Your task to perform on an android device: Search for vegetarian restaurants on Maps Image 0: 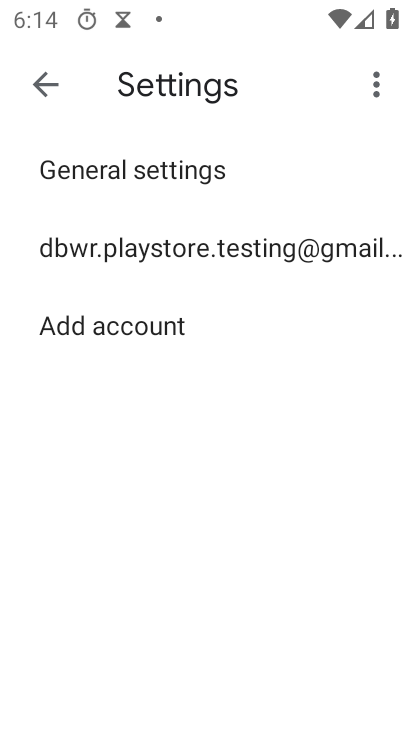
Step 0: press home button
Your task to perform on an android device: Search for vegetarian restaurants on Maps Image 1: 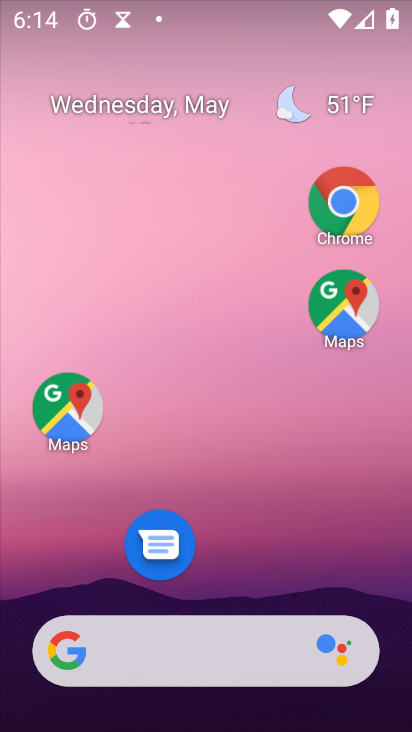
Step 1: drag from (233, 528) to (192, 91)
Your task to perform on an android device: Search for vegetarian restaurants on Maps Image 2: 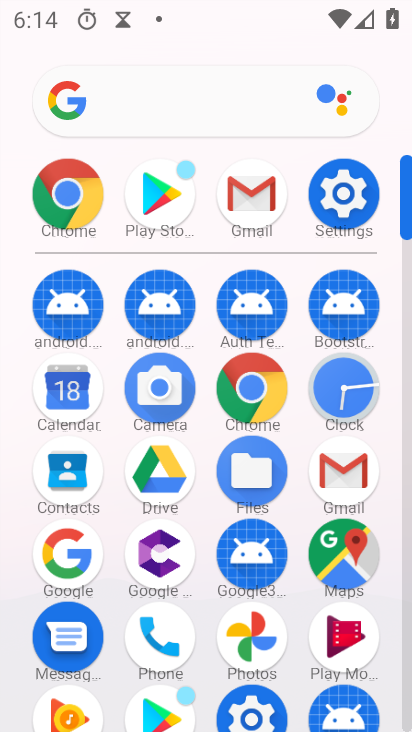
Step 2: click (353, 545)
Your task to perform on an android device: Search for vegetarian restaurants on Maps Image 3: 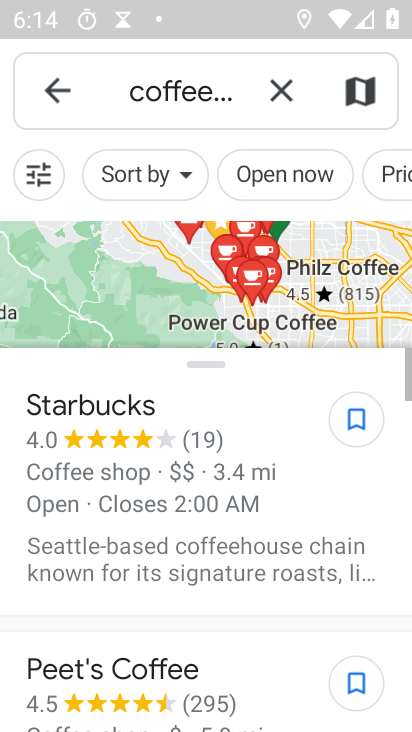
Step 3: click (289, 91)
Your task to perform on an android device: Search for vegetarian restaurants on Maps Image 4: 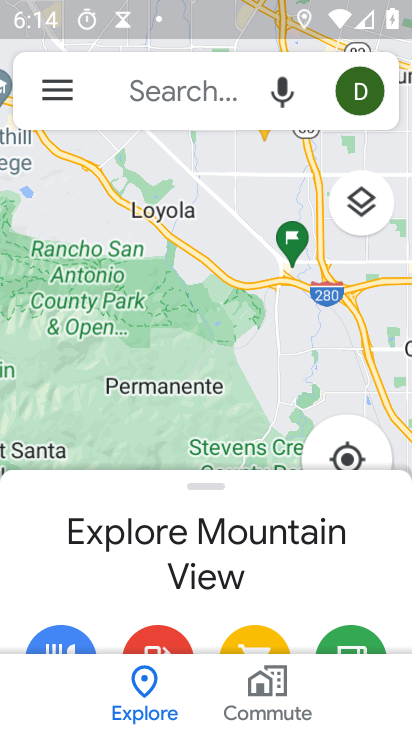
Step 4: click (174, 82)
Your task to perform on an android device: Search for vegetarian restaurants on Maps Image 5: 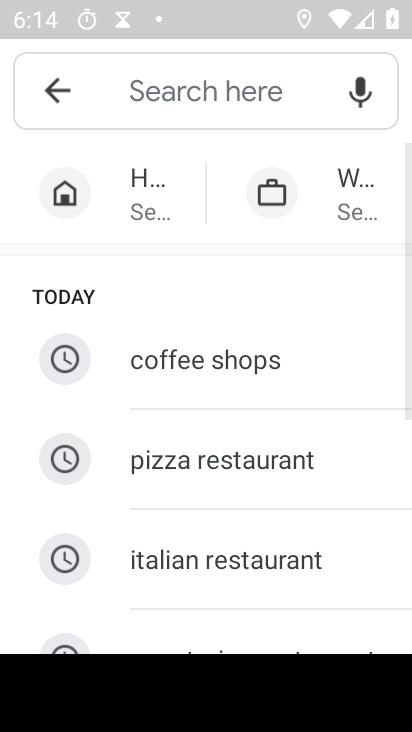
Step 5: click (190, 346)
Your task to perform on an android device: Search for vegetarian restaurants on Maps Image 6: 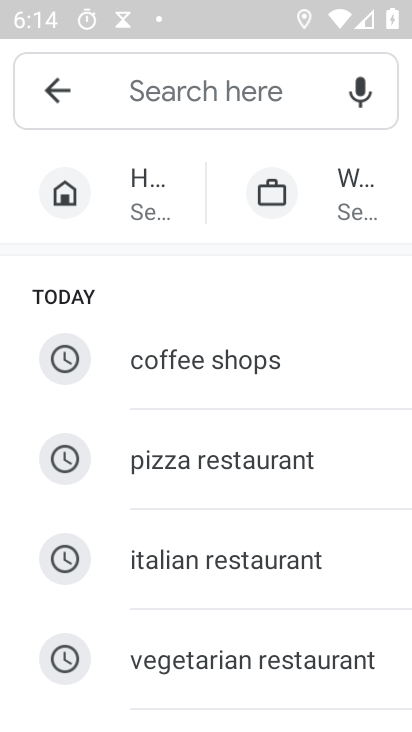
Step 6: click (237, 670)
Your task to perform on an android device: Search for vegetarian restaurants on Maps Image 7: 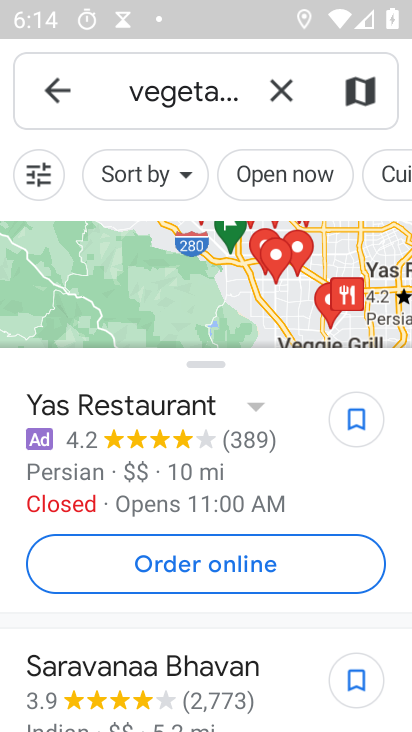
Step 7: task complete